Your task to perform on an android device: toggle pop-ups in chrome Image 0: 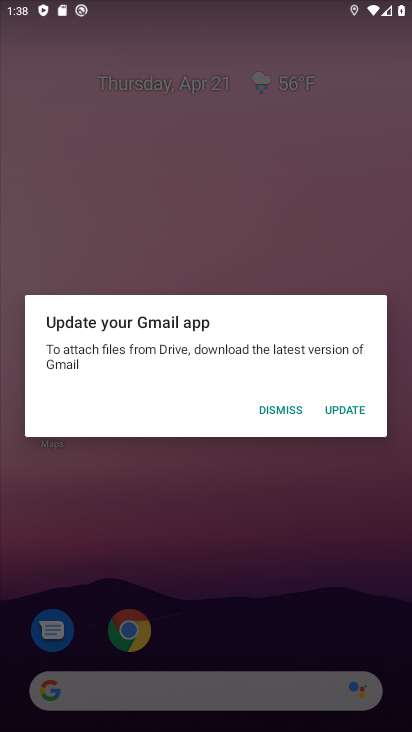
Step 0: click (386, 569)
Your task to perform on an android device: toggle pop-ups in chrome Image 1: 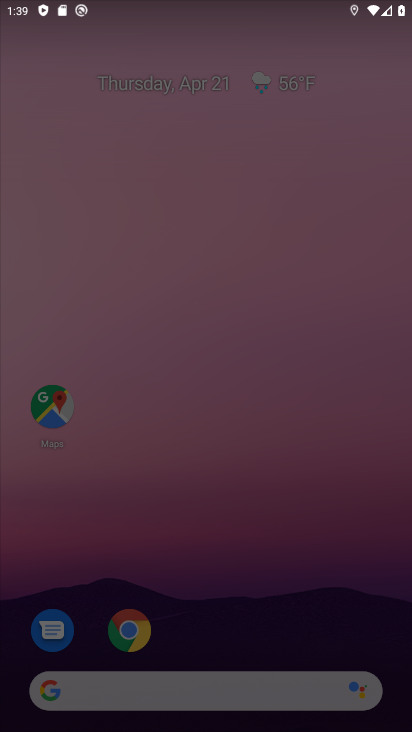
Step 1: press home button
Your task to perform on an android device: toggle pop-ups in chrome Image 2: 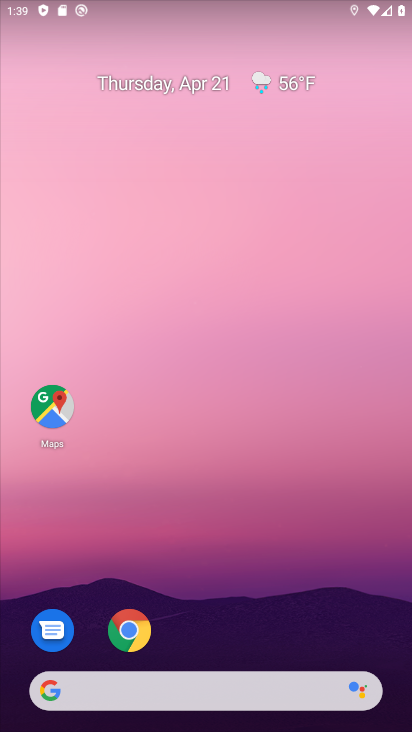
Step 2: click (146, 650)
Your task to perform on an android device: toggle pop-ups in chrome Image 3: 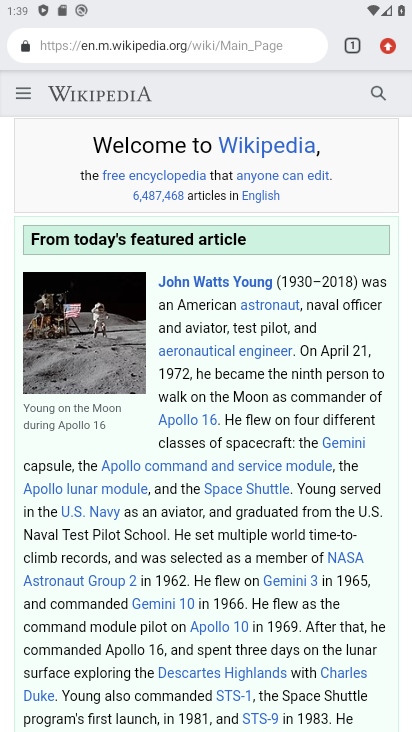
Step 3: click (392, 53)
Your task to perform on an android device: toggle pop-ups in chrome Image 4: 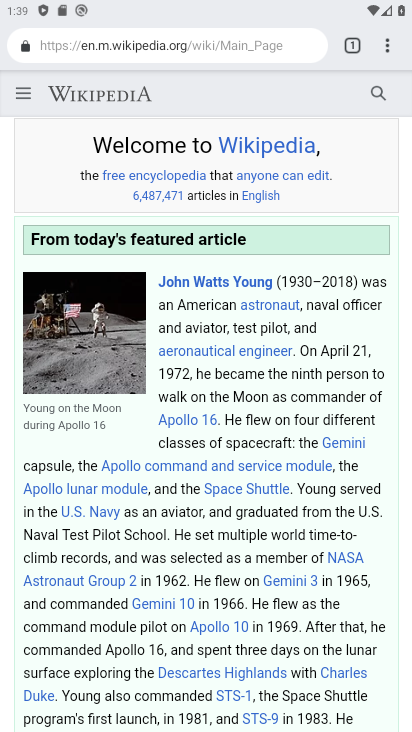
Step 4: click (387, 56)
Your task to perform on an android device: toggle pop-ups in chrome Image 5: 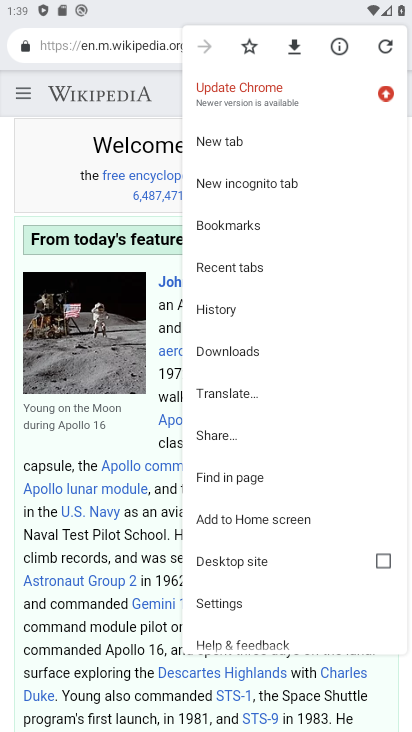
Step 5: click (232, 600)
Your task to perform on an android device: toggle pop-ups in chrome Image 6: 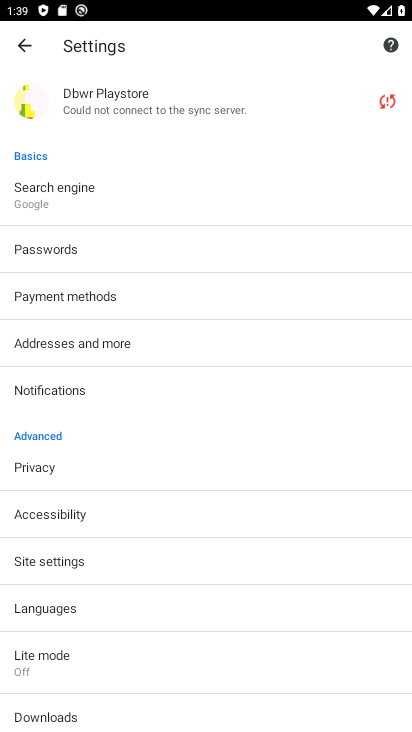
Step 6: click (111, 562)
Your task to perform on an android device: toggle pop-ups in chrome Image 7: 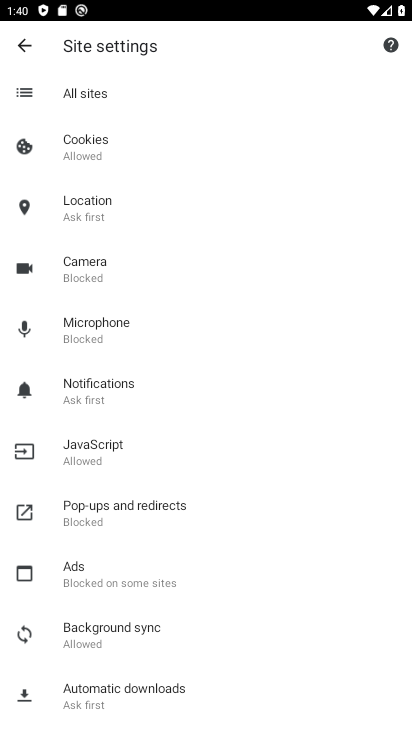
Step 7: drag from (154, 633) to (113, 365)
Your task to perform on an android device: toggle pop-ups in chrome Image 8: 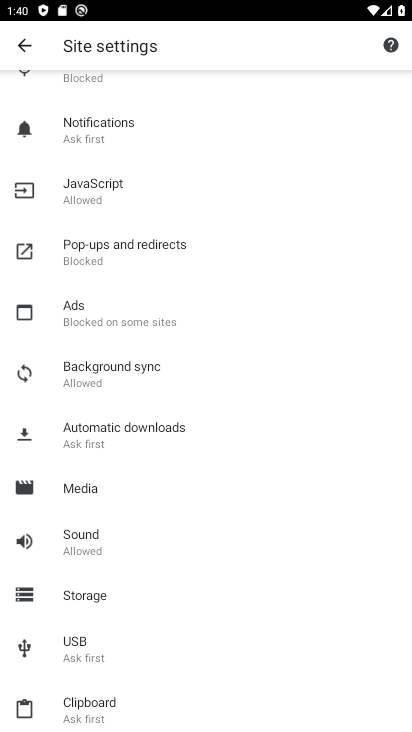
Step 8: drag from (159, 492) to (148, 726)
Your task to perform on an android device: toggle pop-ups in chrome Image 9: 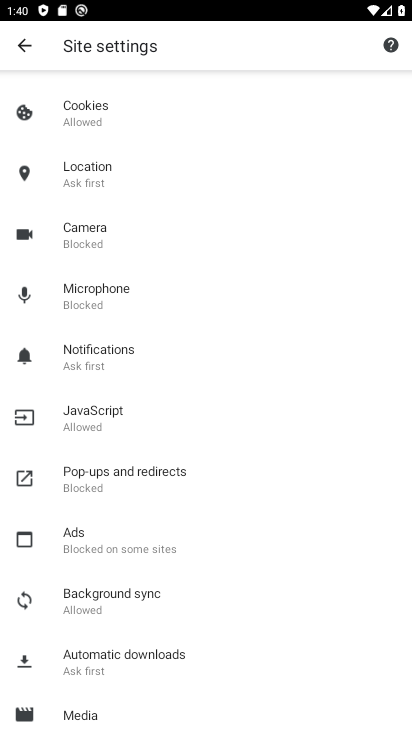
Step 9: click (99, 475)
Your task to perform on an android device: toggle pop-ups in chrome Image 10: 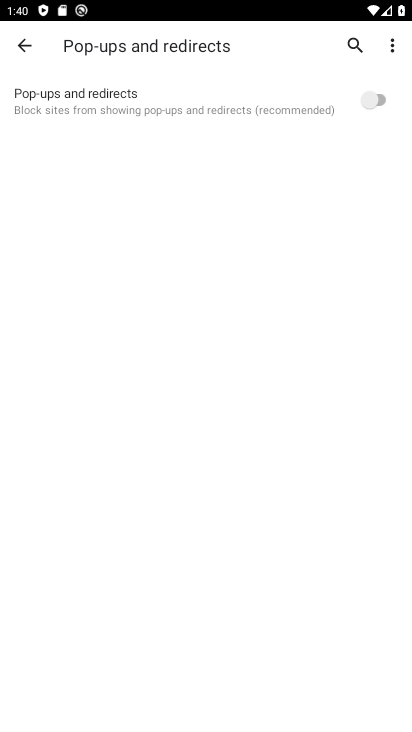
Step 10: click (378, 96)
Your task to perform on an android device: toggle pop-ups in chrome Image 11: 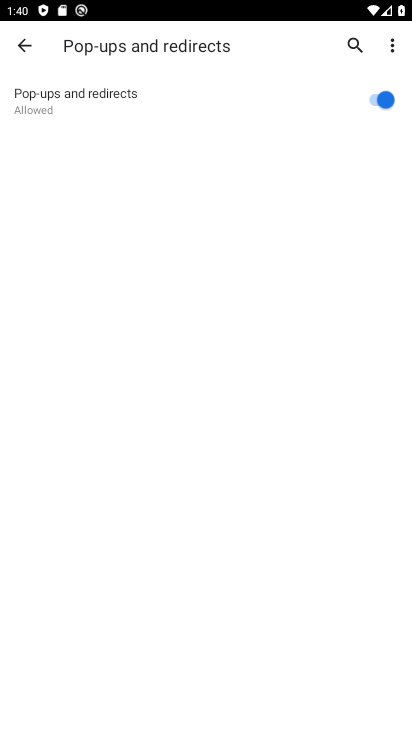
Step 11: task complete